Your task to perform on an android device: turn off location history Image 0: 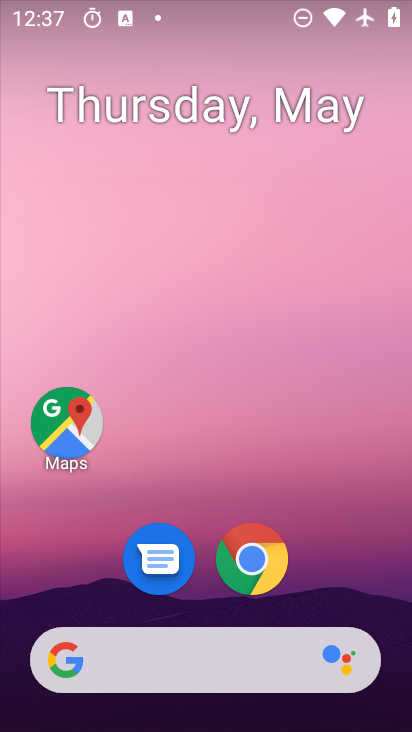
Step 0: drag from (230, 663) to (277, 255)
Your task to perform on an android device: turn off location history Image 1: 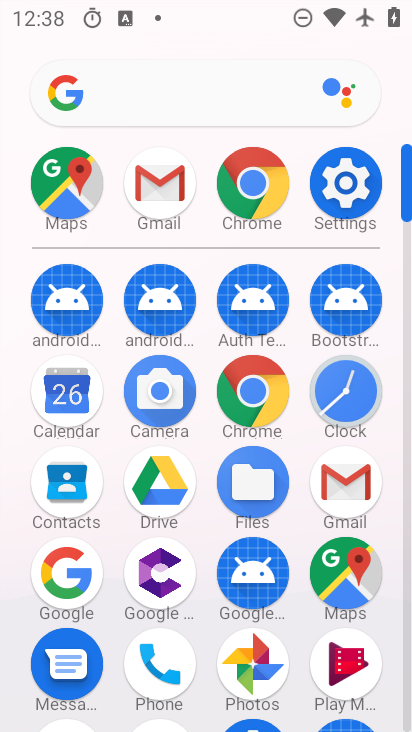
Step 1: click (357, 192)
Your task to perform on an android device: turn off location history Image 2: 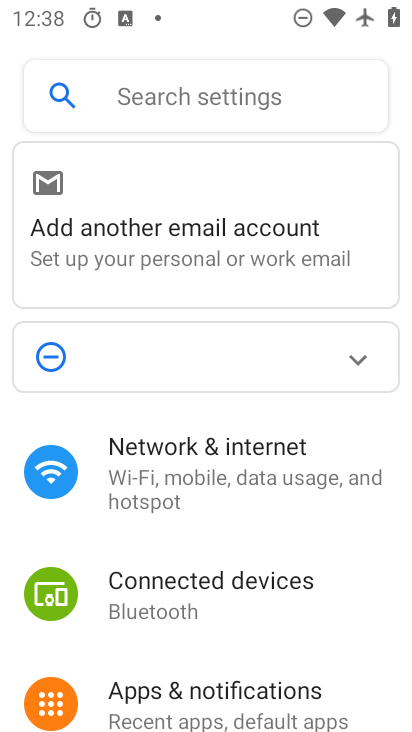
Step 2: drag from (241, 588) to (268, 294)
Your task to perform on an android device: turn off location history Image 3: 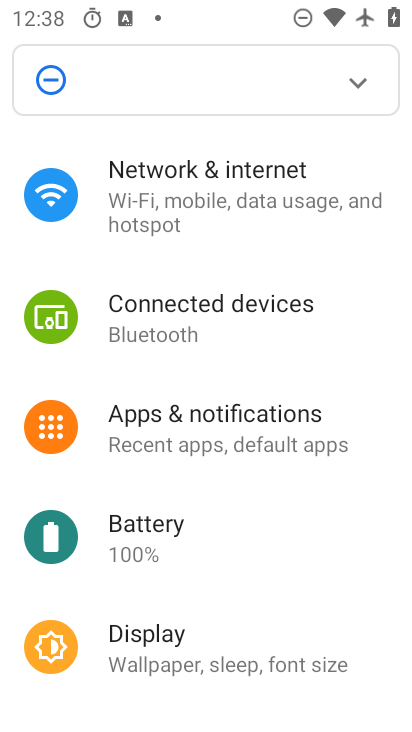
Step 3: drag from (232, 581) to (298, 319)
Your task to perform on an android device: turn off location history Image 4: 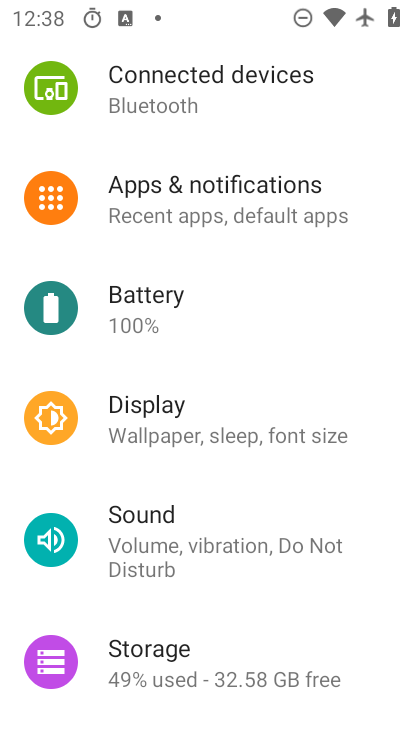
Step 4: drag from (270, 571) to (316, 346)
Your task to perform on an android device: turn off location history Image 5: 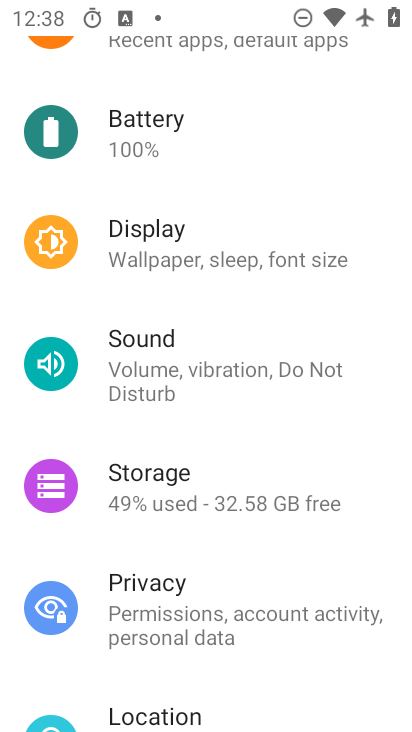
Step 5: drag from (235, 577) to (267, 386)
Your task to perform on an android device: turn off location history Image 6: 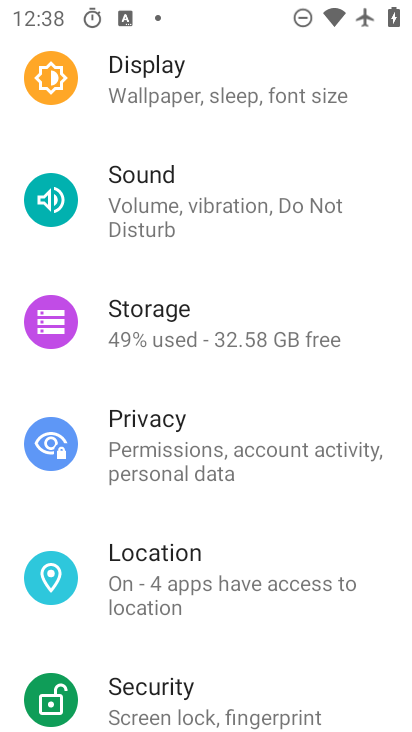
Step 6: click (239, 586)
Your task to perform on an android device: turn off location history Image 7: 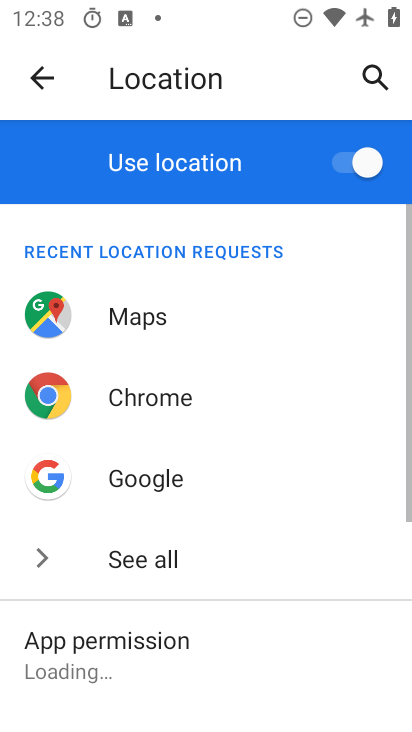
Step 7: drag from (239, 584) to (276, 340)
Your task to perform on an android device: turn off location history Image 8: 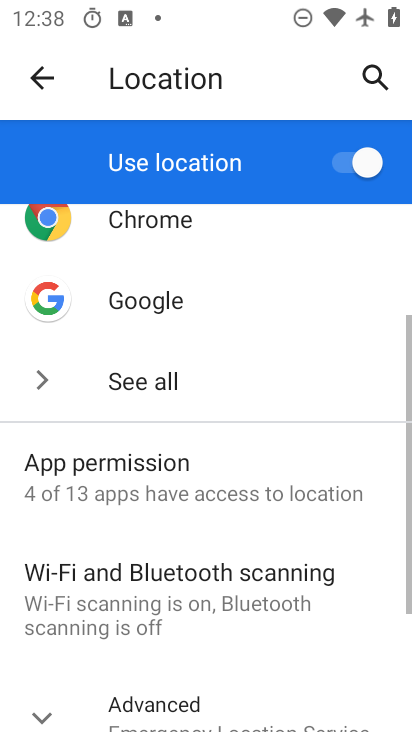
Step 8: drag from (245, 627) to (295, 418)
Your task to perform on an android device: turn off location history Image 9: 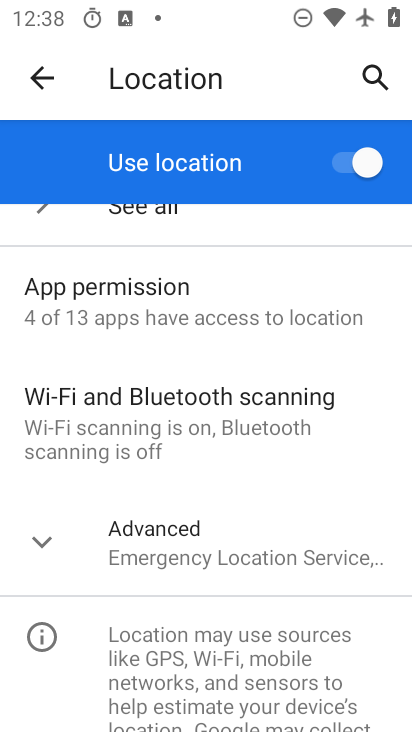
Step 9: click (262, 556)
Your task to perform on an android device: turn off location history Image 10: 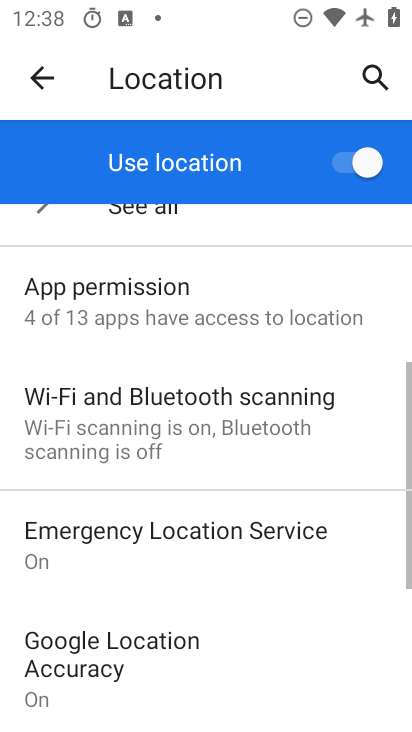
Step 10: drag from (262, 556) to (296, 338)
Your task to perform on an android device: turn off location history Image 11: 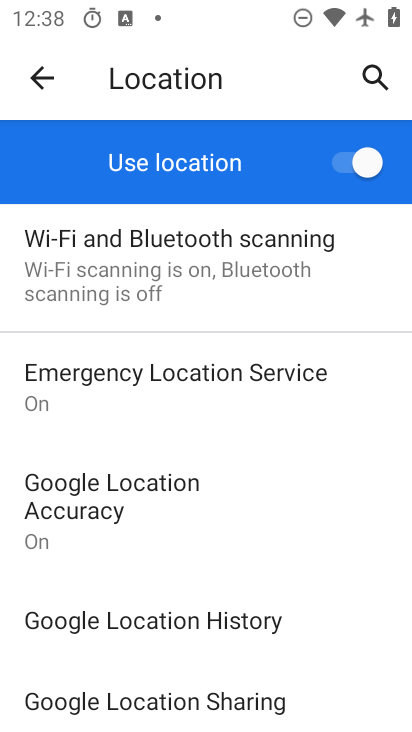
Step 11: click (254, 632)
Your task to perform on an android device: turn off location history Image 12: 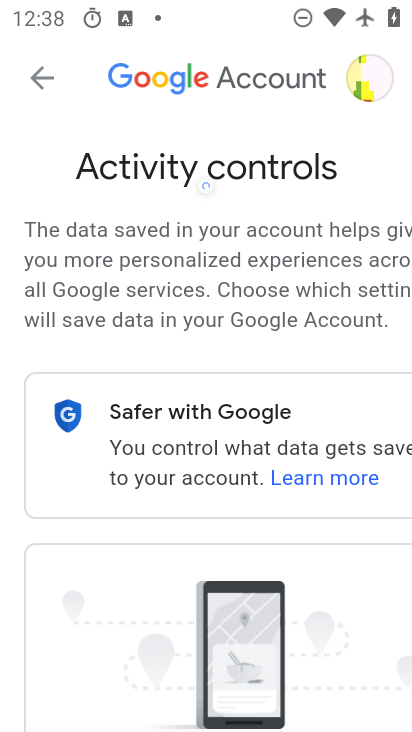
Step 12: task complete